Your task to perform on an android device: show emergency info Image 0: 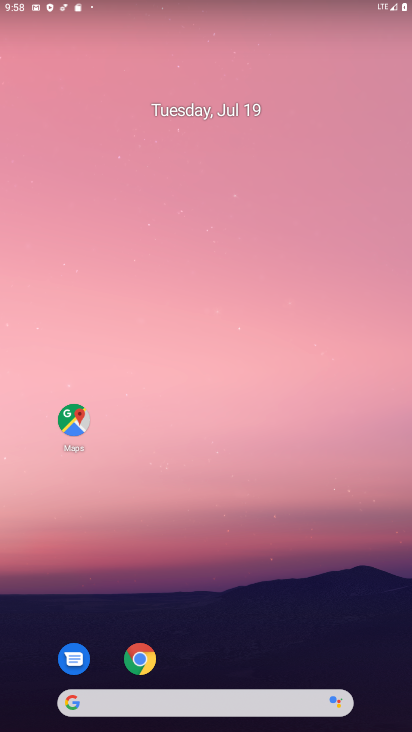
Step 0: drag from (241, 643) to (265, 222)
Your task to perform on an android device: show emergency info Image 1: 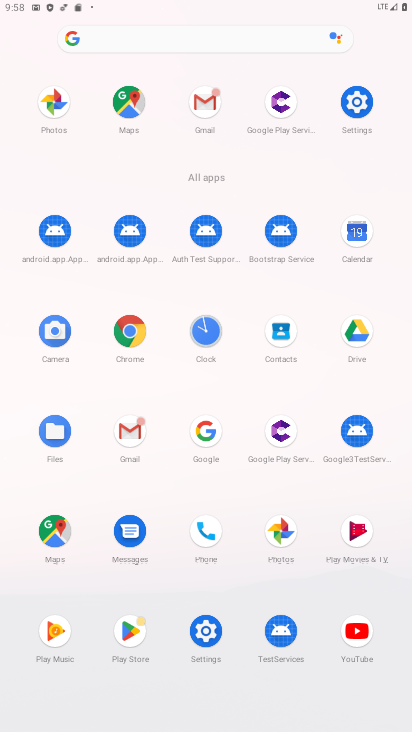
Step 1: click (206, 634)
Your task to perform on an android device: show emergency info Image 2: 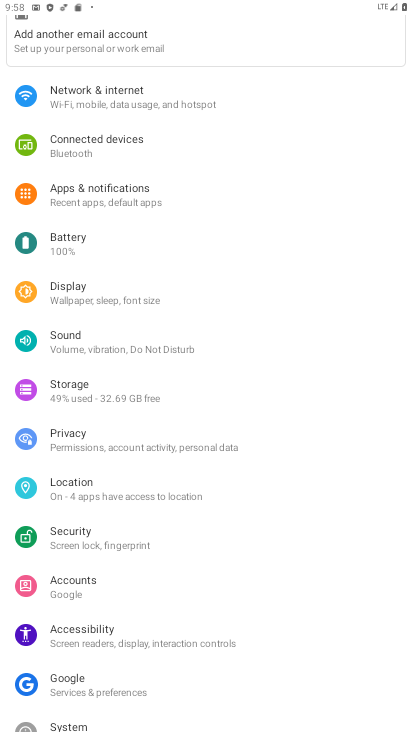
Step 2: task complete